Your task to perform on an android device: clear all cookies in the chrome app Image 0: 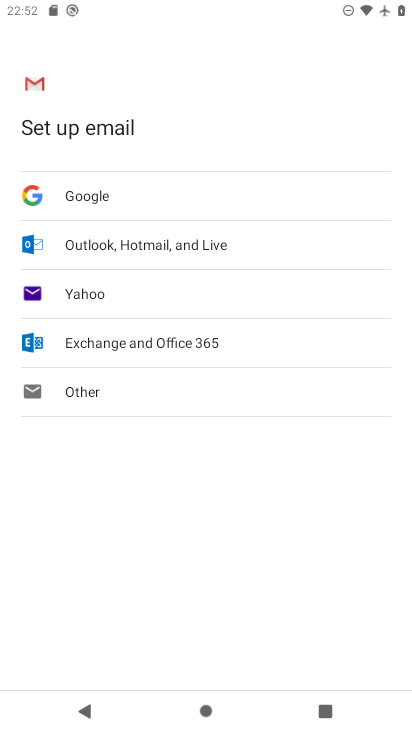
Step 0: press home button
Your task to perform on an android device: clear all cookies in the chrome app Image 1: 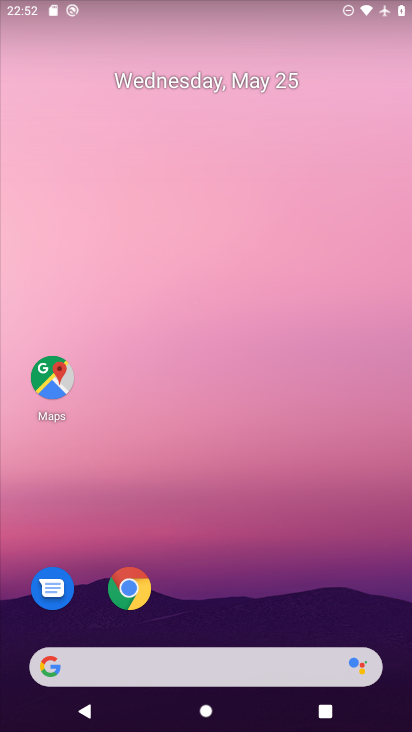
Step 1: click (126, 584)
Your task to perform on an android device: clear all cookies in the chrome app Image 2: 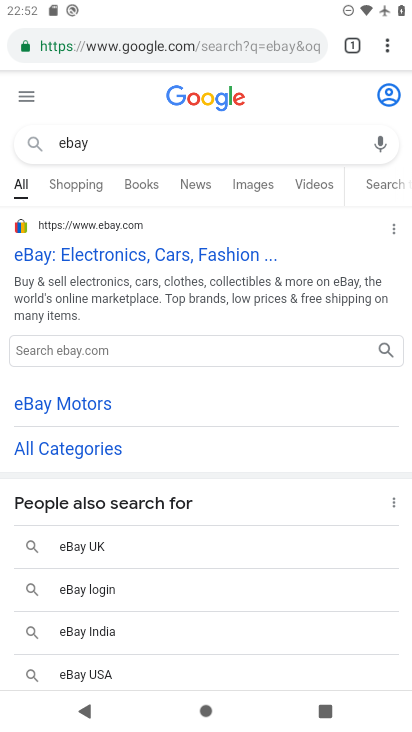
Step 2: click (389, 44)
Your task to perform on an android device: clear all cookies in the chrome app Image 3: 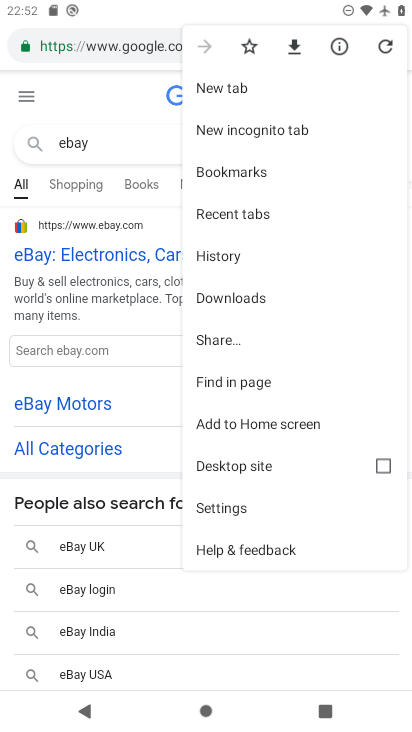
Step 3: click (231, 509)
Your task to perform on an android device: clear all cookies in the chrome app Image 4: 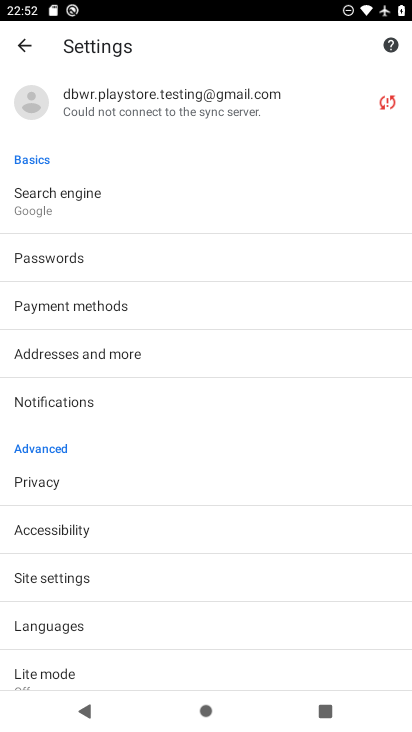
Step 4: click (125, 569)
Your task to perform on an android device: clear all cookies in the chrome app Image 5: 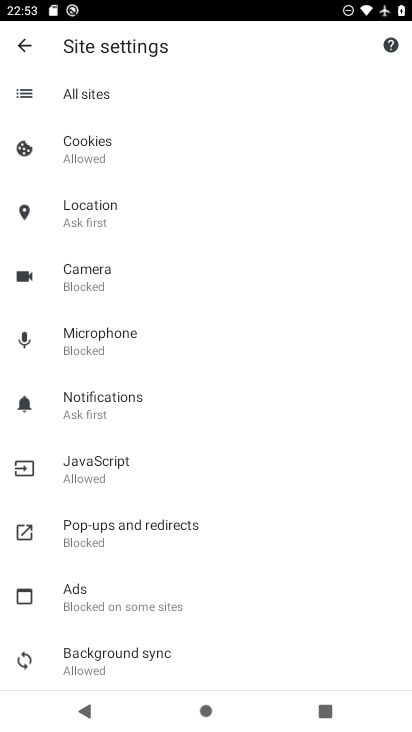
Step 5: click (107, 150)
Your task to perform on an android device: clear all cookies in the chrome app Image 6: 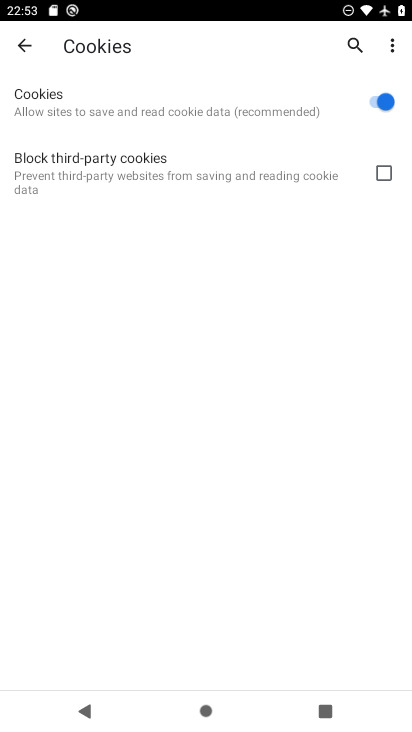
Step 6: click (14, 58)
Your task to perform on an android device: clear all cookies in the chrome app Image 7: 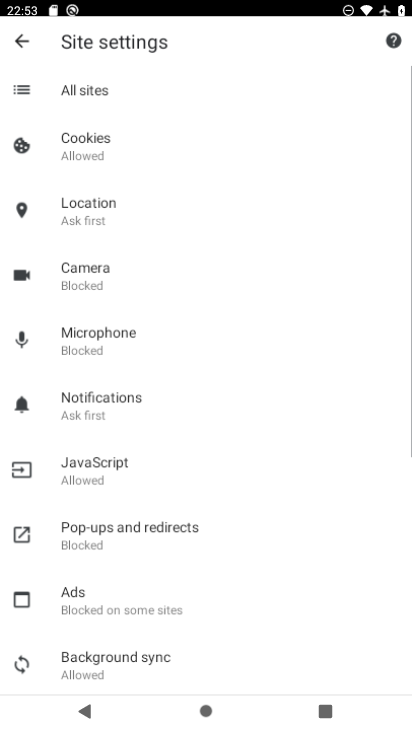
Step 7: click (22, 48)
Your task to perform on an android device: clear all cookies in the chrome app Image 8: 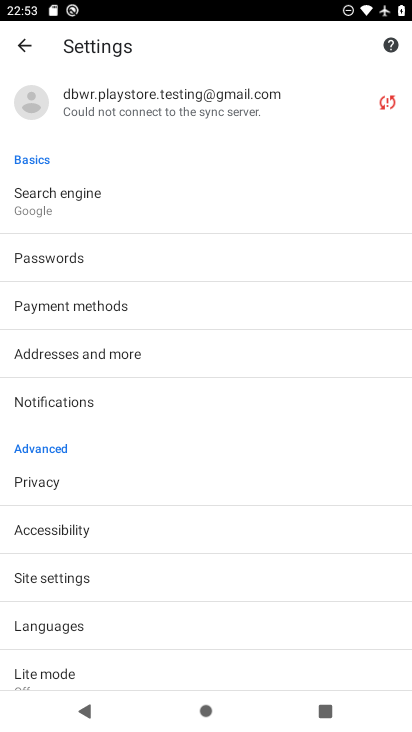
Step 8: click (33, 44)
Your task to perform on an android device: clear all cookies in the chrome app Image 9: 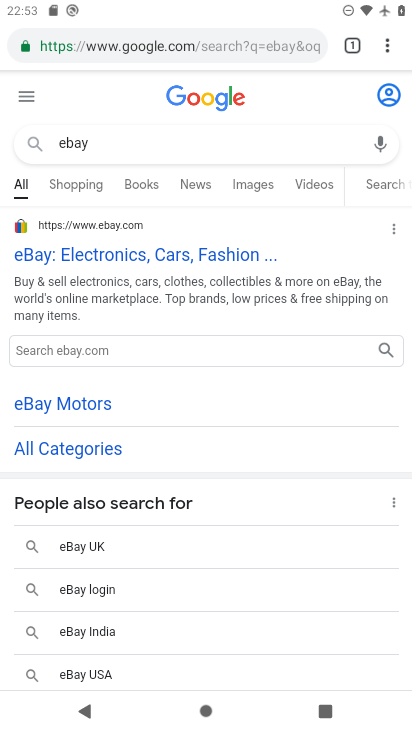
Step 9: drag from (386, 46) to (250, 245)
Your task to perform on an android device: clear all cookies in the chrome app Image 10: 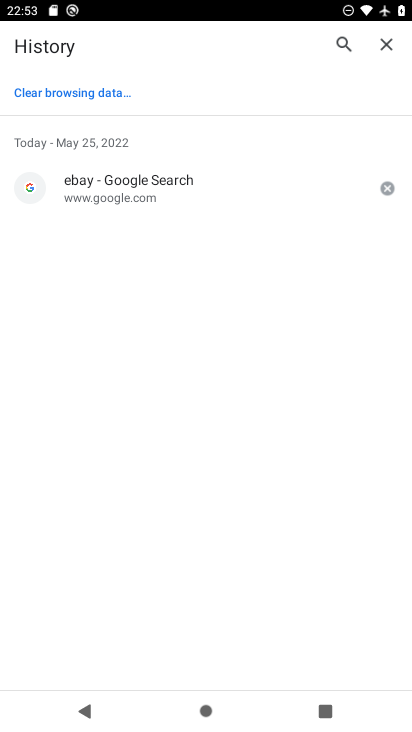
Step 10: click (108, 91)
Your task to perform on an android device: clear all cookies in the chrome app Image 11: 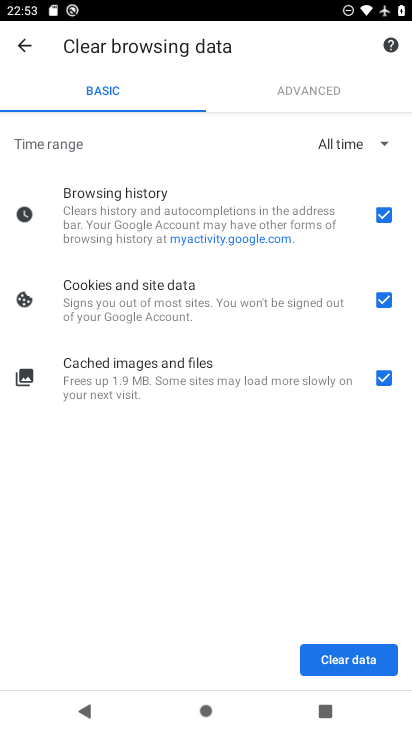
Step 11: click (344, 656)
Your task to perform on an android device: clear all cookies in the chrome app Image 12: 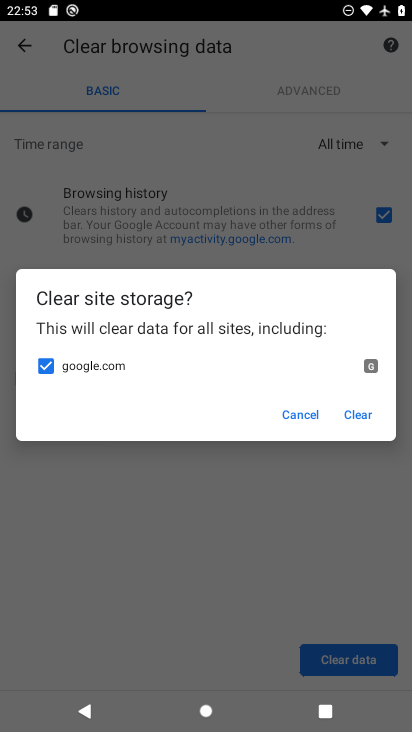
Step 12: click (357, 414)
Your task to perform on an android device: clear all cookies in the chrome app Image 13: 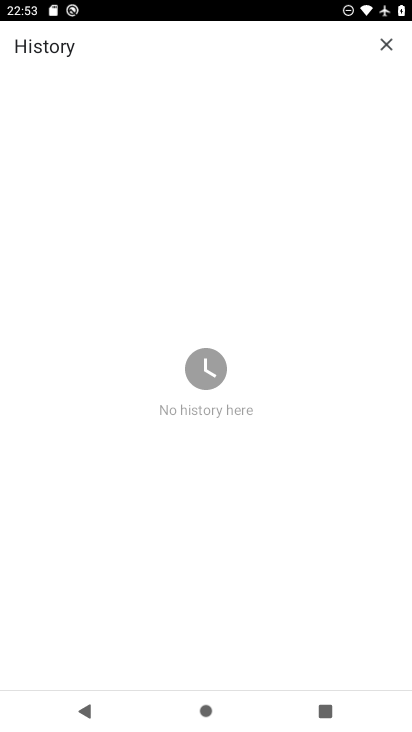
Step 13: task complete